Your task to perform on an android device: delete browsing data in the chrome app Image 0: 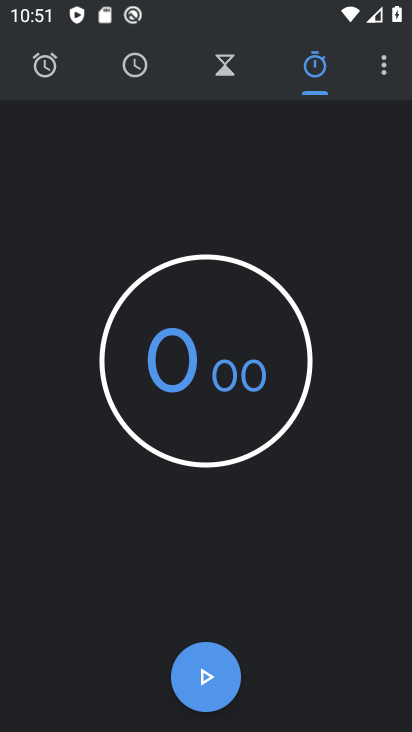
Step 0: press back button
Your task to perform on an android device: delete browsing data in the chrome app Image 1: 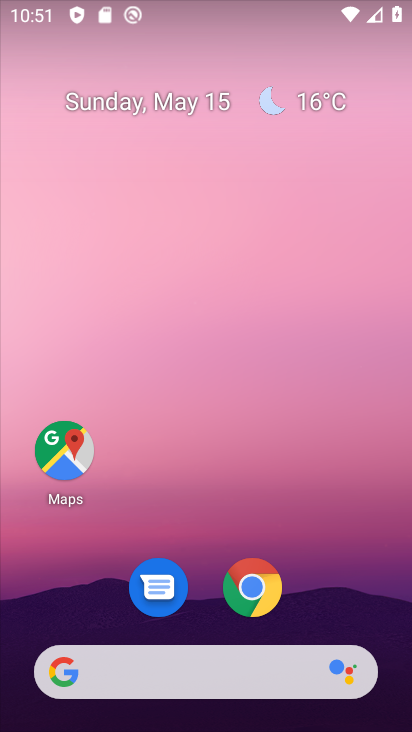
Step 1: drag from (343, 542) to (275, 31)
Your task to perform on an android device: delete browsing data in the chrome app Image 2: 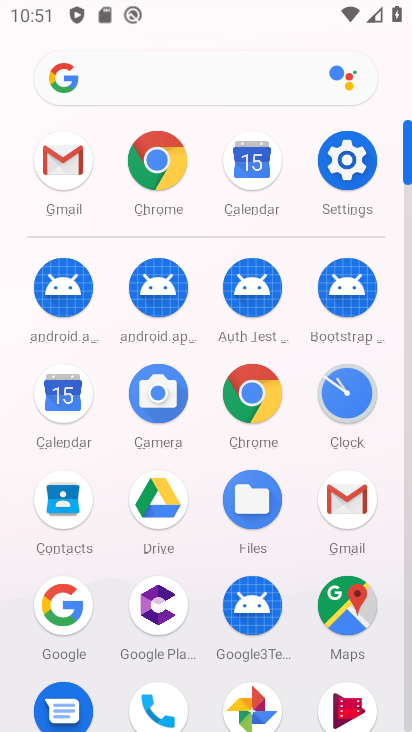
Step 2: click (247, 389)
Your task to perform on an android device: delete browsing data in the chrome app Image 3: 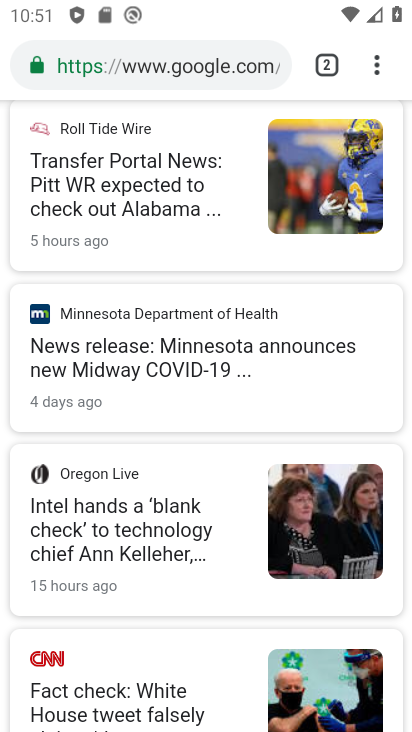
Step 3: drag from (205, 139) to (202, 436)
Your task to perform on an android device: delete browsing data in the chrome app Image 4: 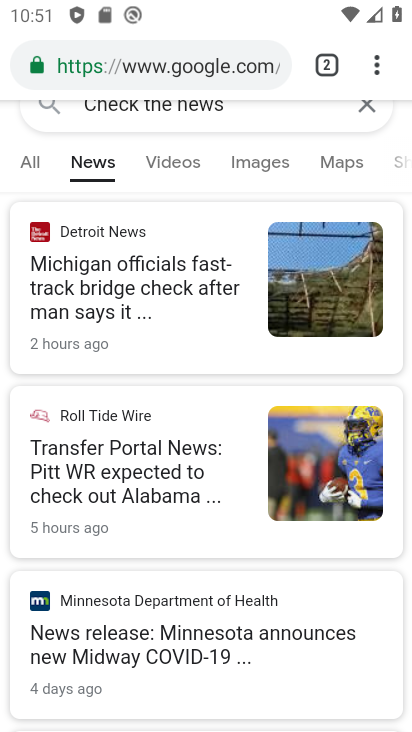
Step 4: click (175, 44)
Your task to perform on an android device: delete browsing data in the chrome app Image 5: 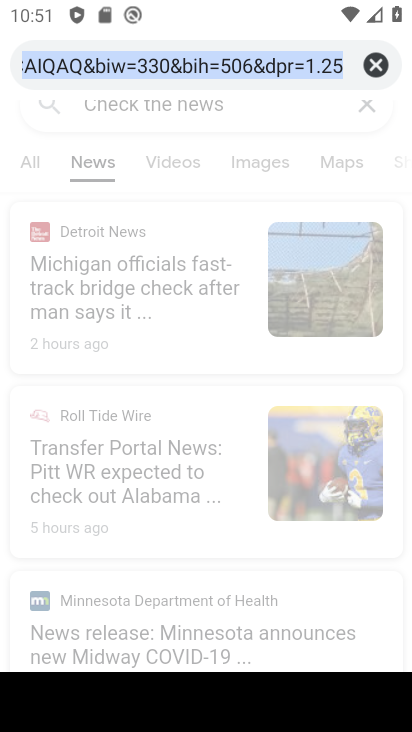
Step 5: click (375, 59)
Your task to perform on an android device: delete browsing data in the chrome app Image 6: 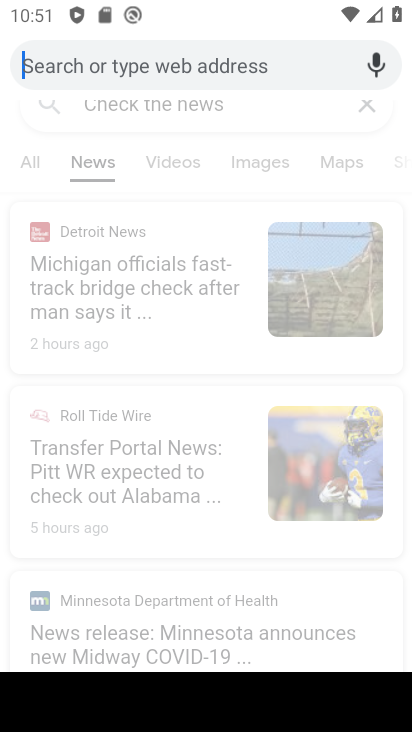
Step 6: press back button
Your task to perform on an android device: delete browsing data in the chrome app Image 7: 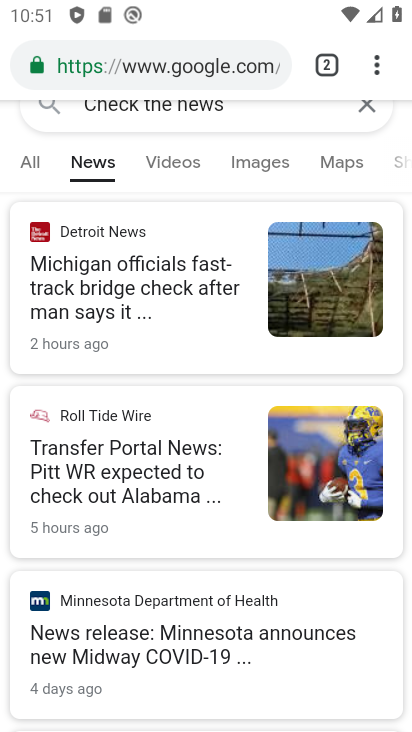
Step 7: drag from (374, 70) to (159, 627)
Your task to perform on an android device: delete browsing data in the chrome app Image 8: 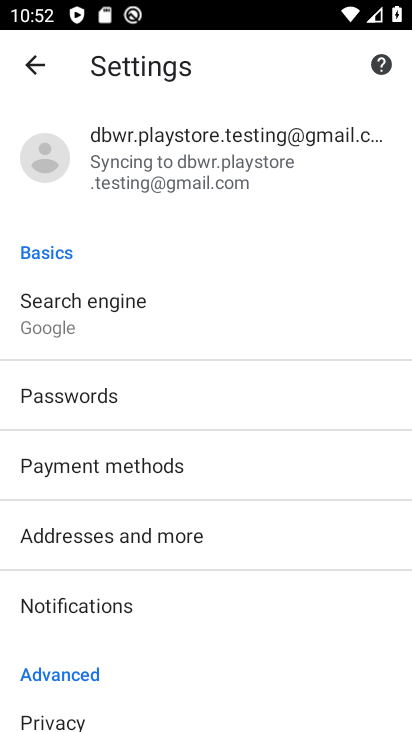
Step 8: drag from (226, 618) to (247, 267)
Your task to perform on an android device: delete browsing data in the chrome app Image 9: 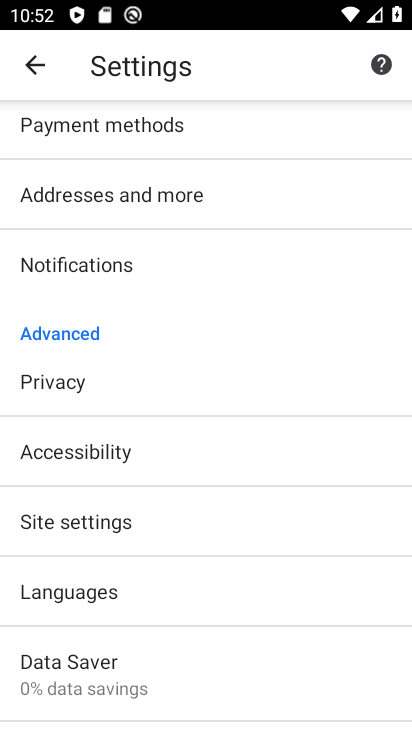
Step 9: drag from (211, 625) to (266, 246)
Your task to perform on an android device: delete browsing data in the chrome app Image 10: 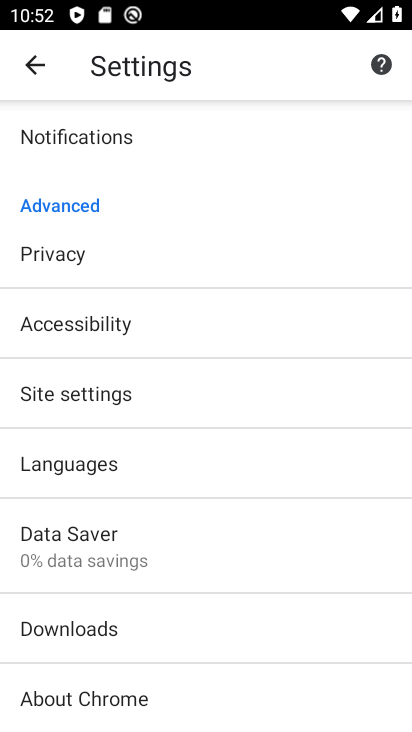
Step 10: click (40, 73)
Your task to perform on an android device: delete browsing data in the chrome app Image 11: 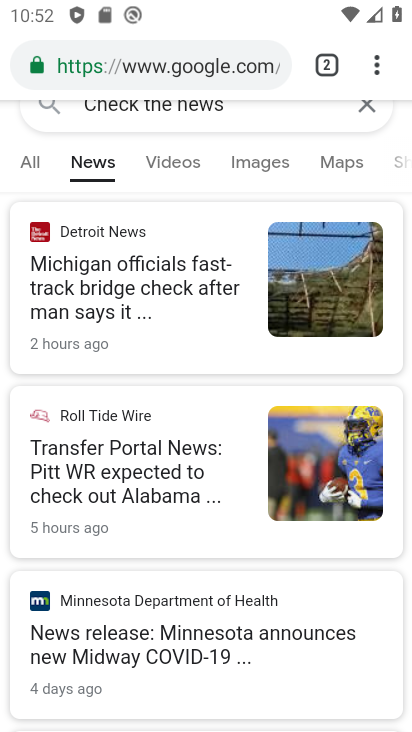
Step 11: drag from (376, 62) to (148, 358)
Your task to perform on an android device: delete browsing data in the chrome app Image 12: 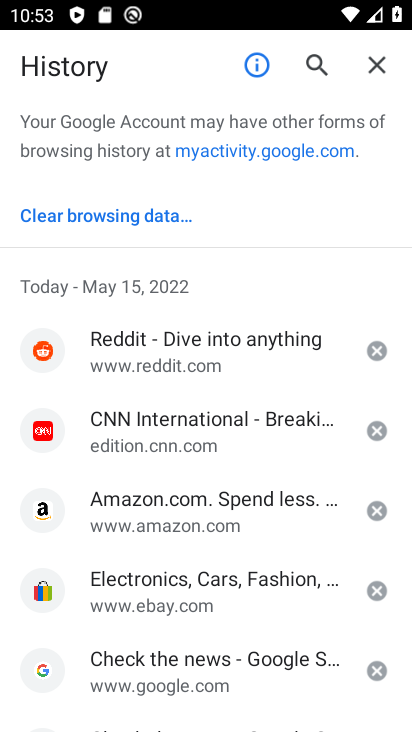
Step 12: click (143, 213)
Your task to perform on an android device: delete browsing data in the chrome app Image 13: 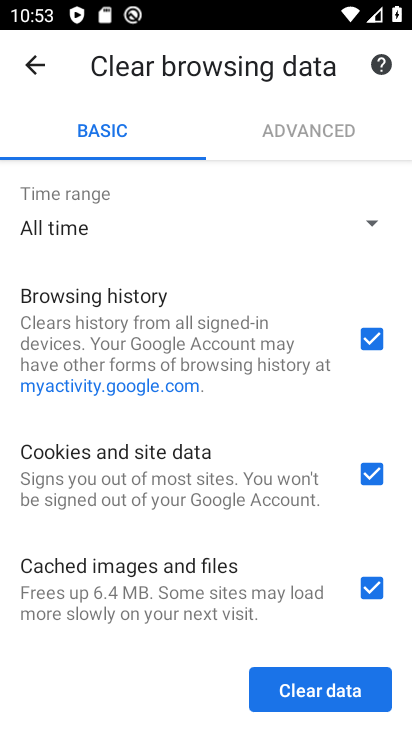
Step 13: click (310, 683)
Your task to perform on an android device: delete browsing data in the chrome app Image 14: 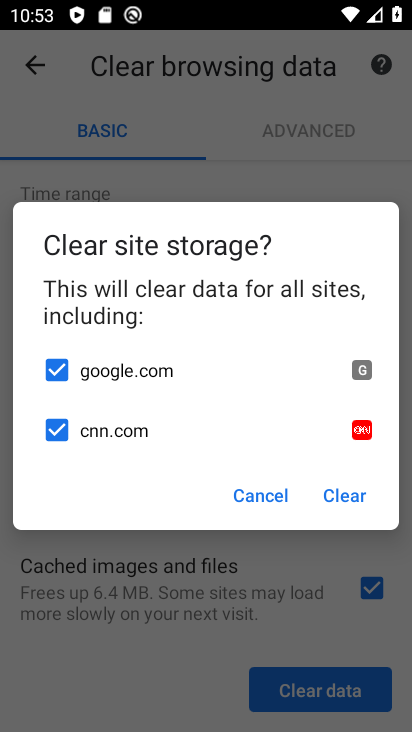
Step 14: click (346, 489)
Your task to perform on an android device: delete browsing data in the chrome app Image 15: 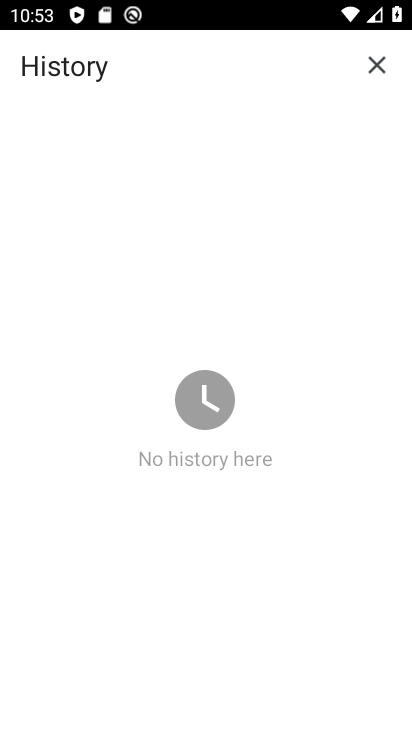
Step 15: task complete